Your task to perform on an android device: Search for top rated pizza restaurants on Maps Image 0: 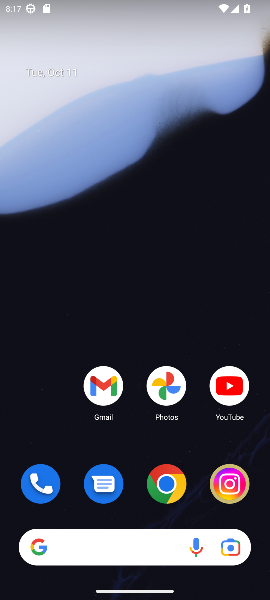
Step 0: drag from (98, 540) to (154, 96)
Your task to perform on an android device: Search for top rated pizza restaurants on Maps Image 1: 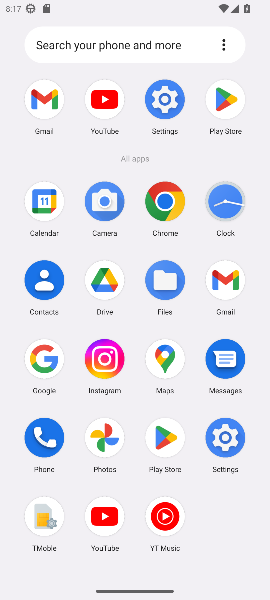
Step 1: click (164, 354)
Your task to perform on an android device: Search for top rated pizza restaurants on Maps Image 2: 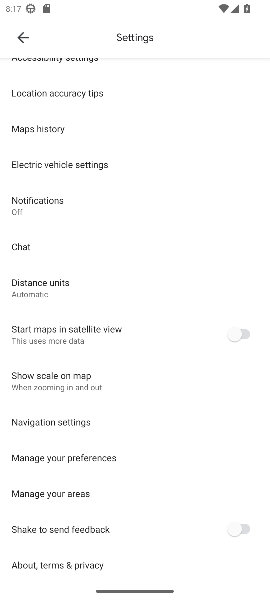
Step 2: press back button
Your task to perform on an android device: Search for top rated pizza restaurants on Maps Image 3: 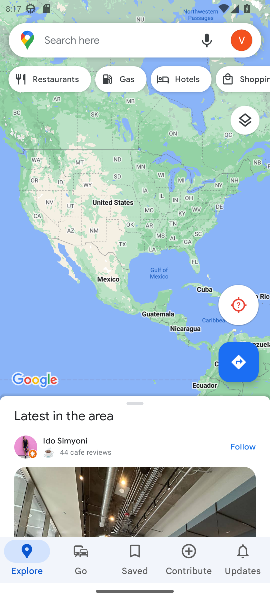
Step 3: click (124, 46)
Your task to perform on an android device: Search for top rated pizza restaurants on Maps Image 4: 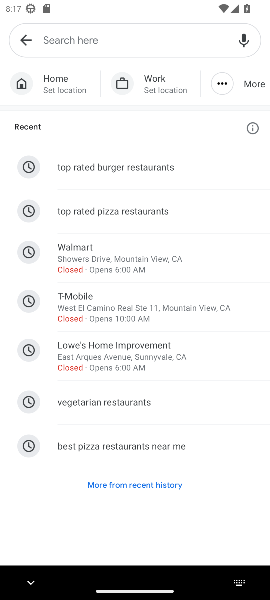
Step 4: type "pizza restaurants"
Your task to perform on an android device: Search for top rated pizza restaurants on Maps Image 5: 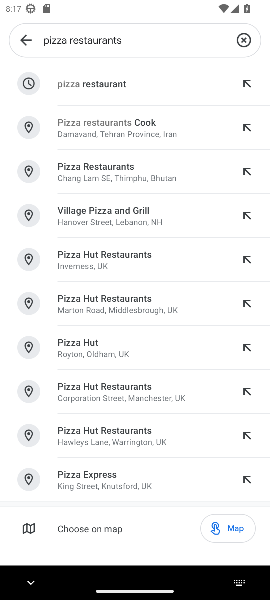
Step 5: click (112, 84)
Your task to perform on an android device: Search for top rated pizza restaurants on Maps Image 6: 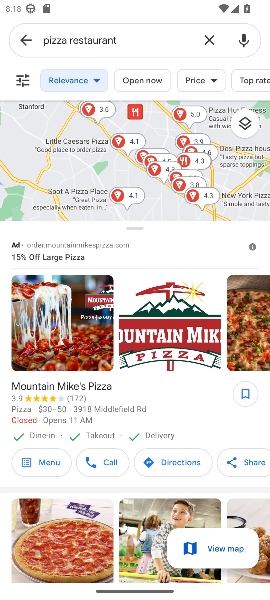
Step 6: click (259, 83)
Your task to perform on an android device: Search for top rated pizza restaurants on Maps Image 7: 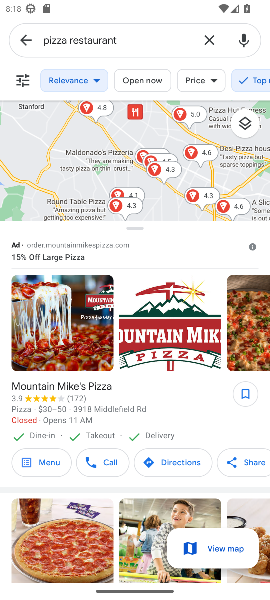
Step 7: task complete